Your task to perform on an android device: Search for flights from Mexico city to Boston Image 0: 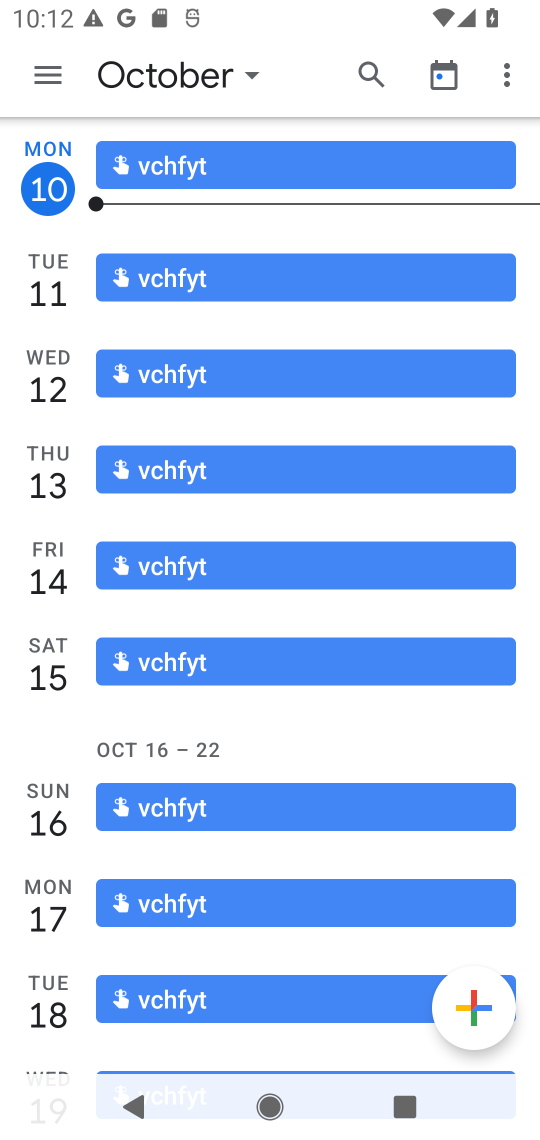
Step 0: press back button
Your task to perform on an android device: Search for flights from Mexico city to Boston Image 1: 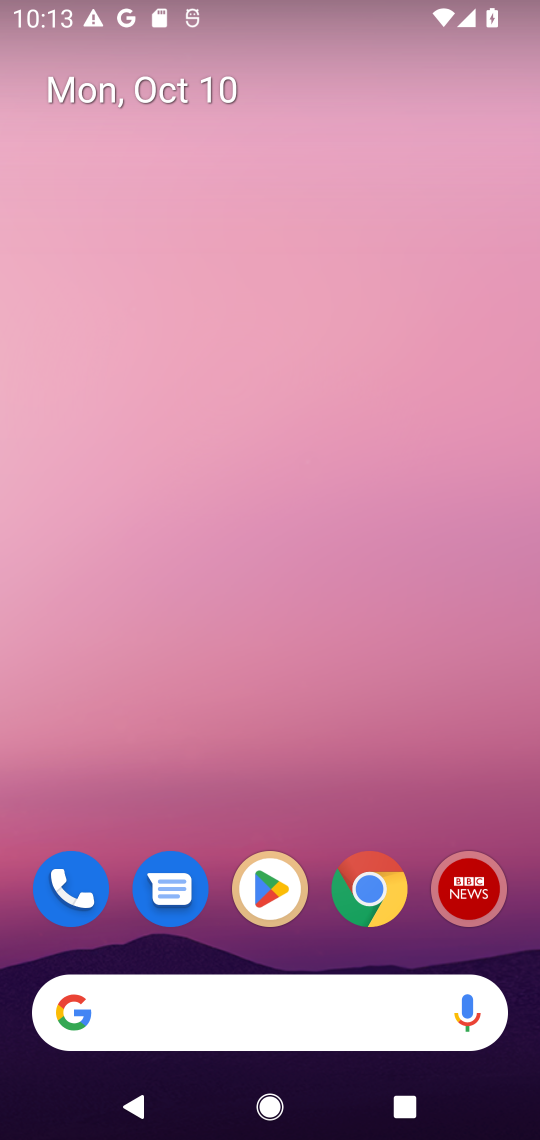
Step 1: click (363, 1006)
Your task to perform on an android device: Search for flights from Mexico city to Boston Image 2: 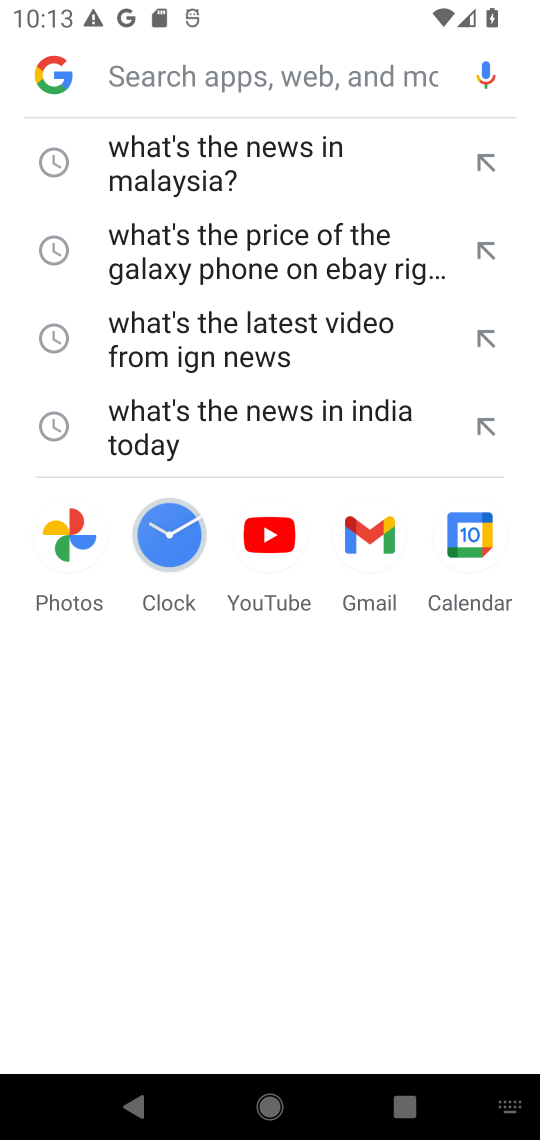
Step 2: type "flights from Mexico city to Boston"
Your task to perform on an android device: Search for flights from Mexico city to Boston Image 3: 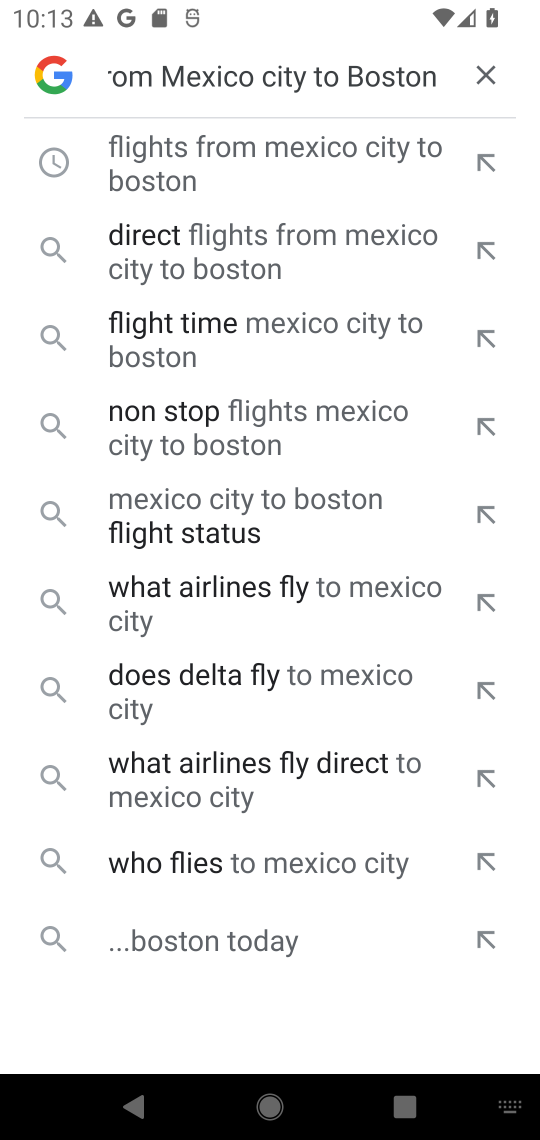
Step 3: type ""
Your task to perform on an android device: Search for flights from Mexico city to Boston Image 4: 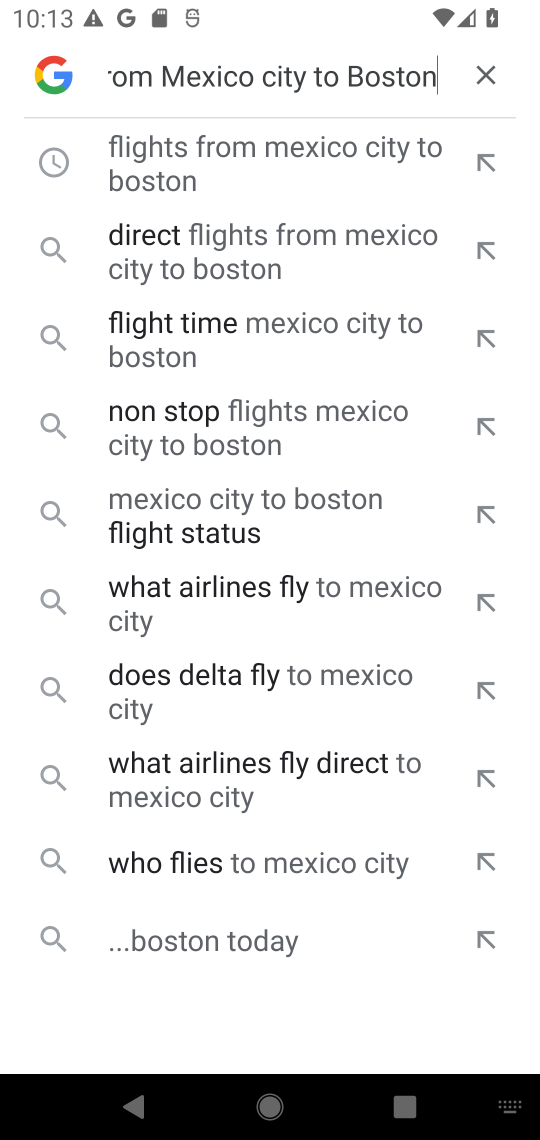
Step 4: click (226, 164)
Your task to perform on an android device: Search for flights from Mexico city to Boston Image 5: 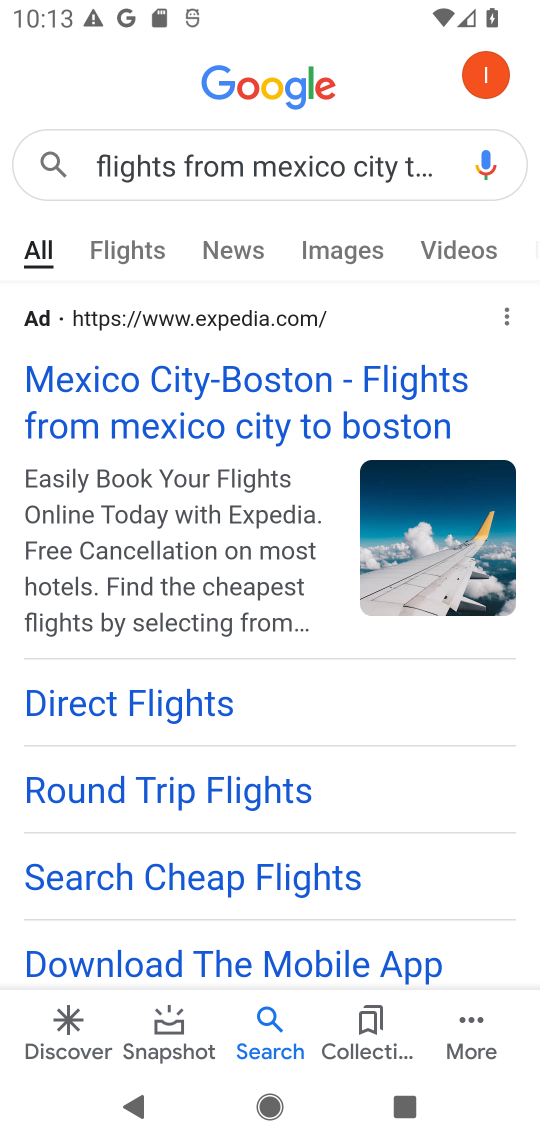
Step 5: drag from (302, 637) to (288, 477)
Your task to perform on an android device: Search for flights from Mexico city to Boston Image 6: 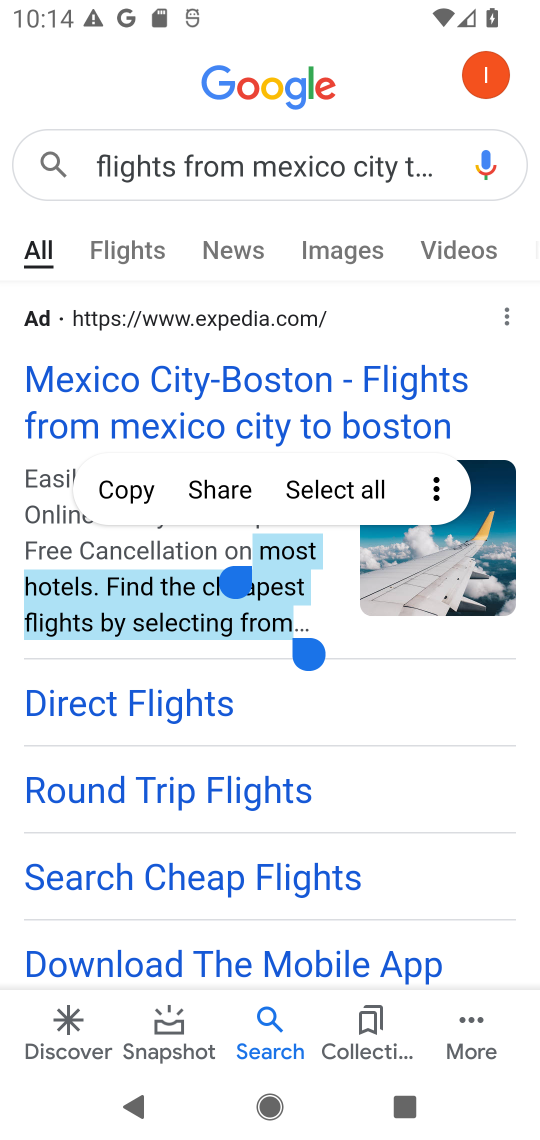
Step 6: click (37, 103)
Your task to perform on an android device: Search for flights from Mexico city to Boston Image 7: 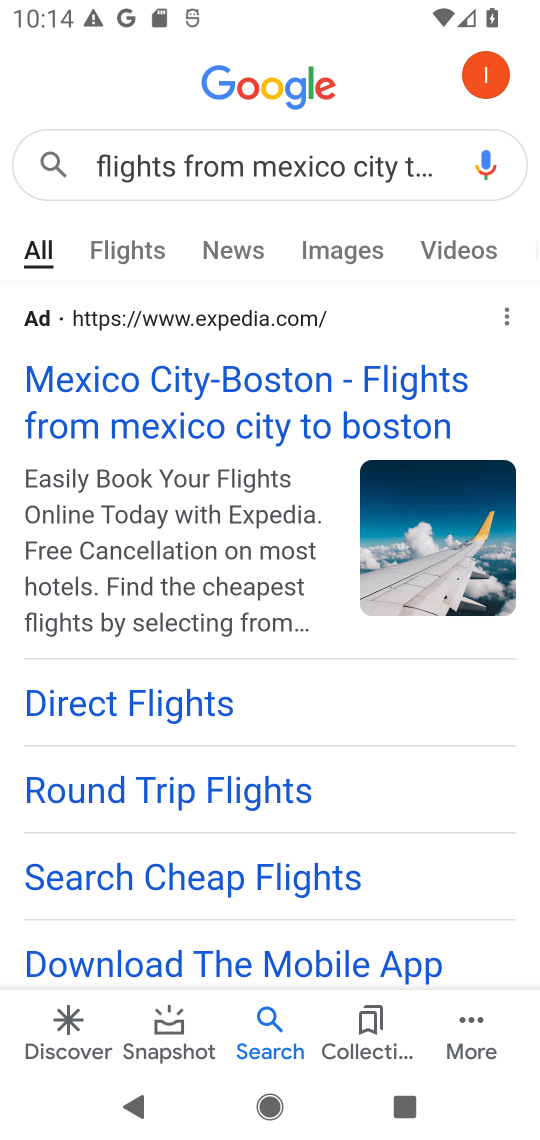
Step 7: click (35, 99)
Your task to perform on an android device: Search for flights from Mexico city to Boston Image 8: 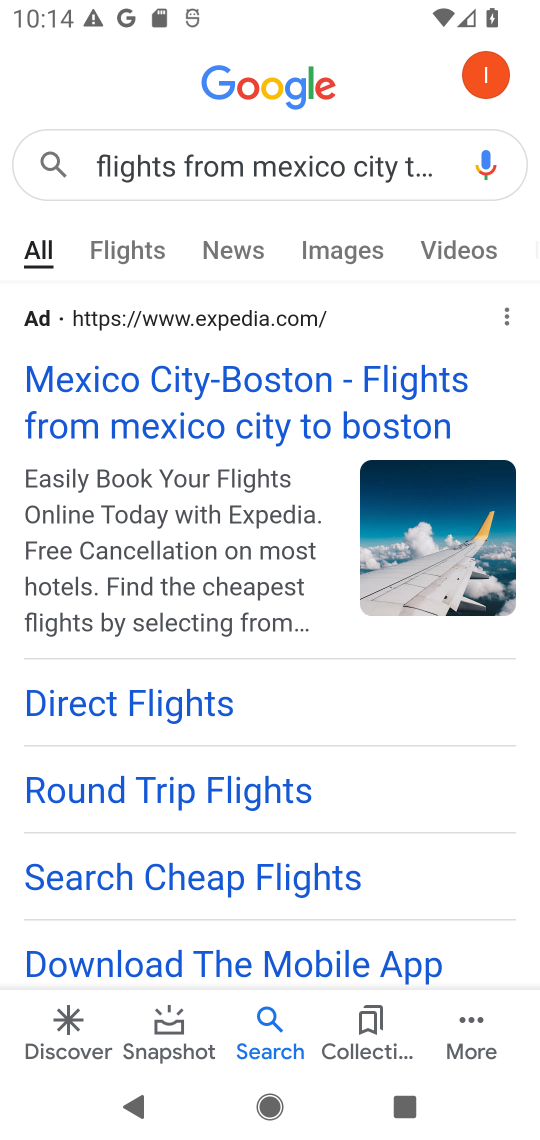
Step 8: drag from (445, 738) to (391, 153)
Your task to perform on an android device: Search for flights from Mexico city to Boston Image 9: 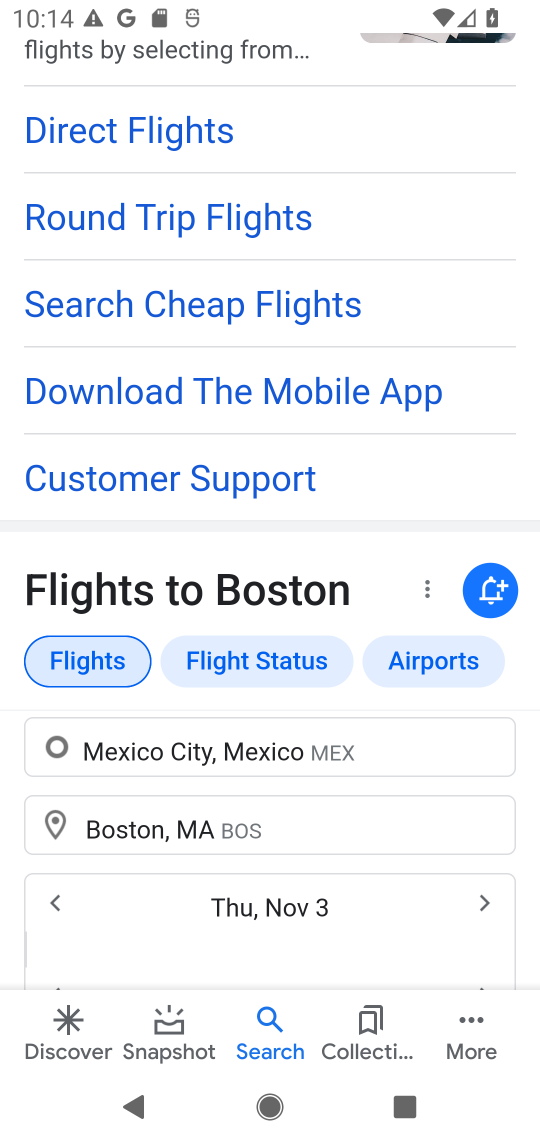
Step 9: drag from (414, 600) to (401, 305)
Your task to perform on an android device: Search for flights from Mexico city to Boston Image 10: 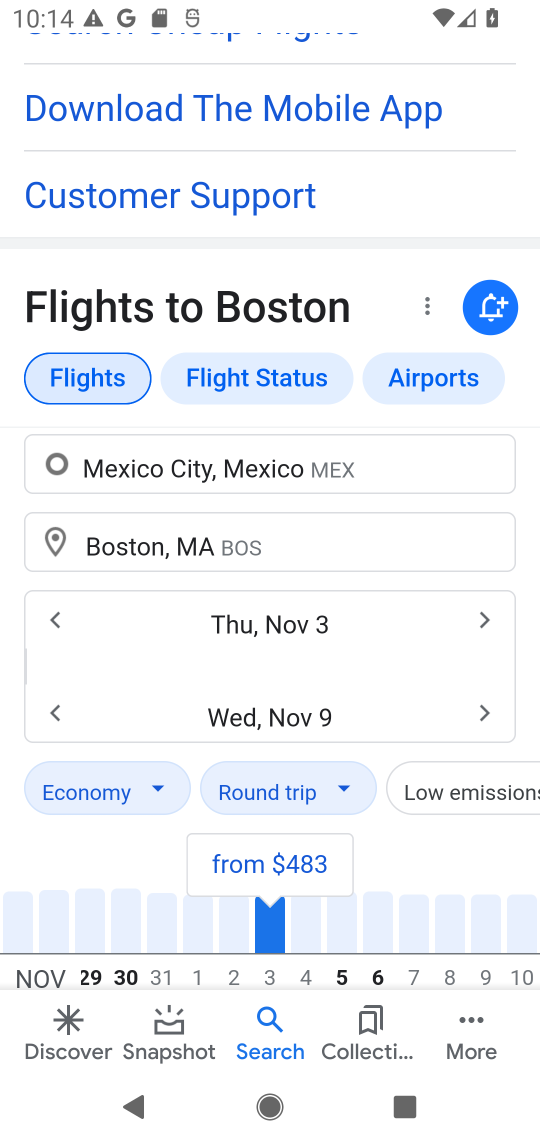
Step 10: drag from (399, 773) to (397, 439)
Your task to perform on an android device: Search for flights from Mexico city to Boston Image 11: 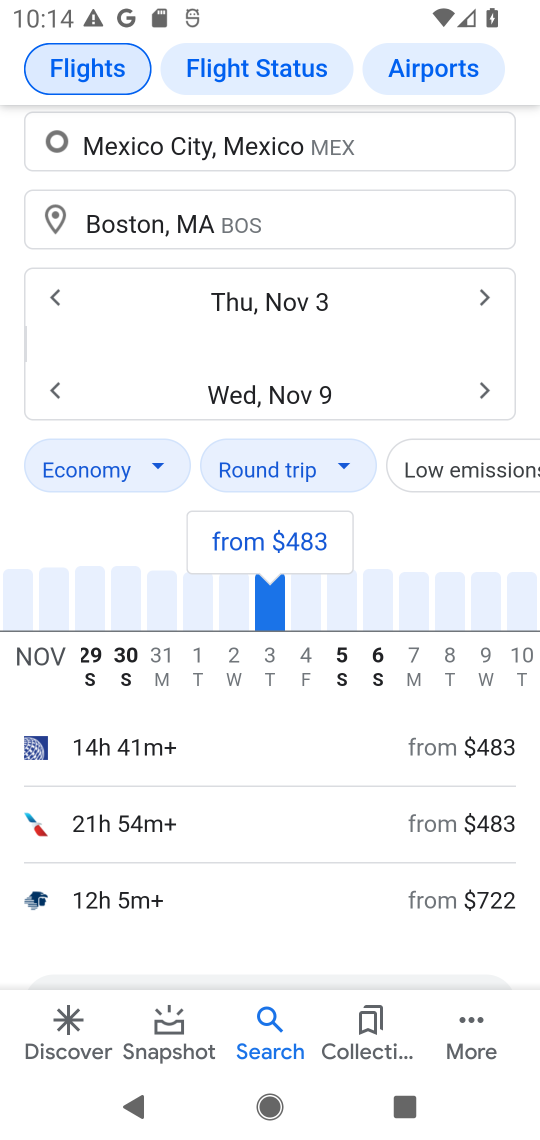
Step 11: drag from (279, 795) to (277, 709)
Your task to perform on an android device: Search for flights from Mexico city to Boston Image 12: 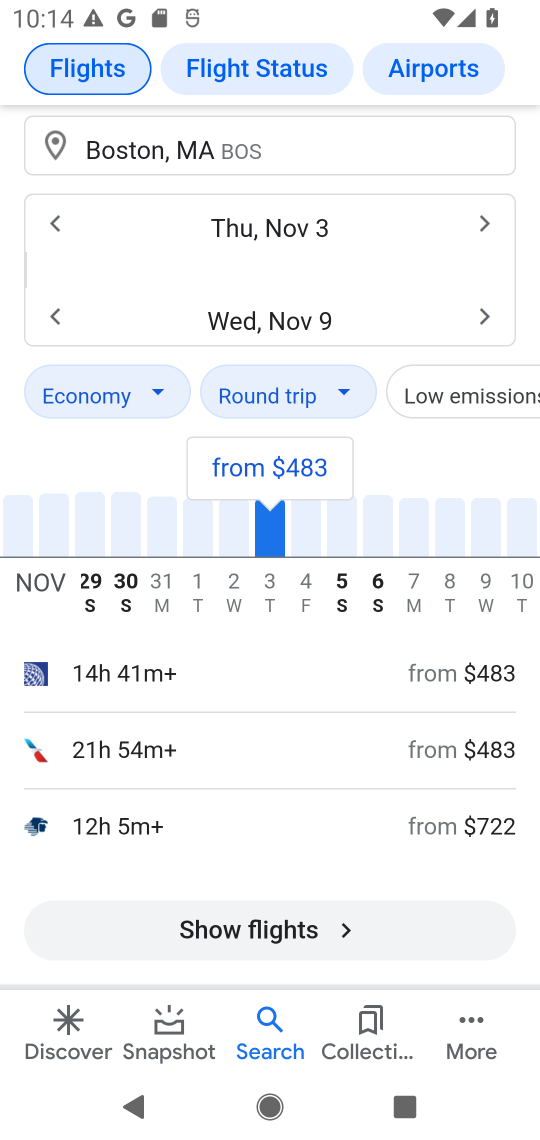
Step 12: drag from (273, 772) to (273, 605)
Your task to perform on an android device: Search for flights from Mexico city to Boston Image 13: 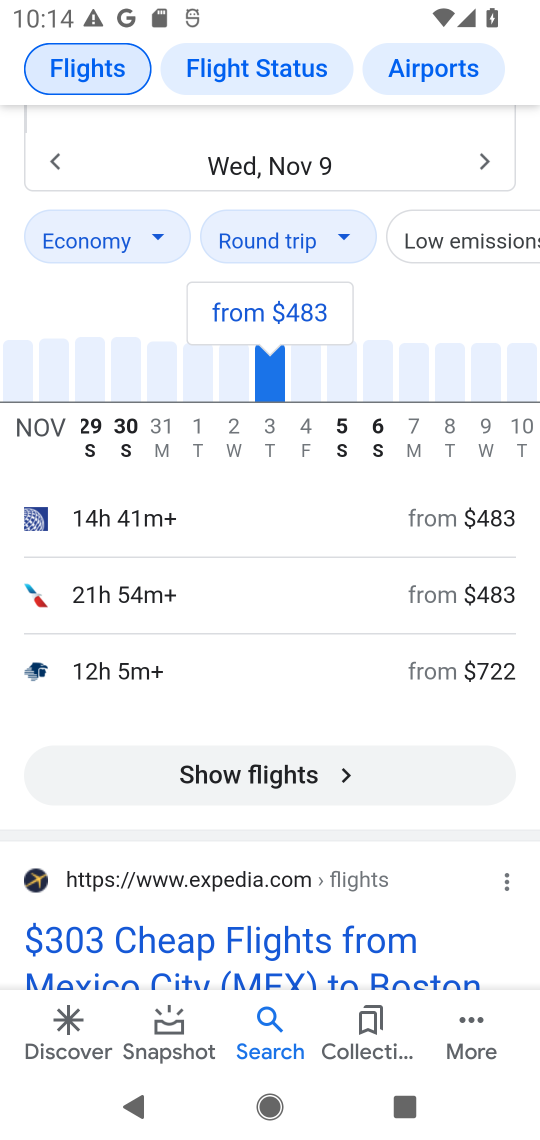
Step 13: click (278, 763)
Your task to perform on an android device: Search for flights from Mexico city to Boston Image 14: 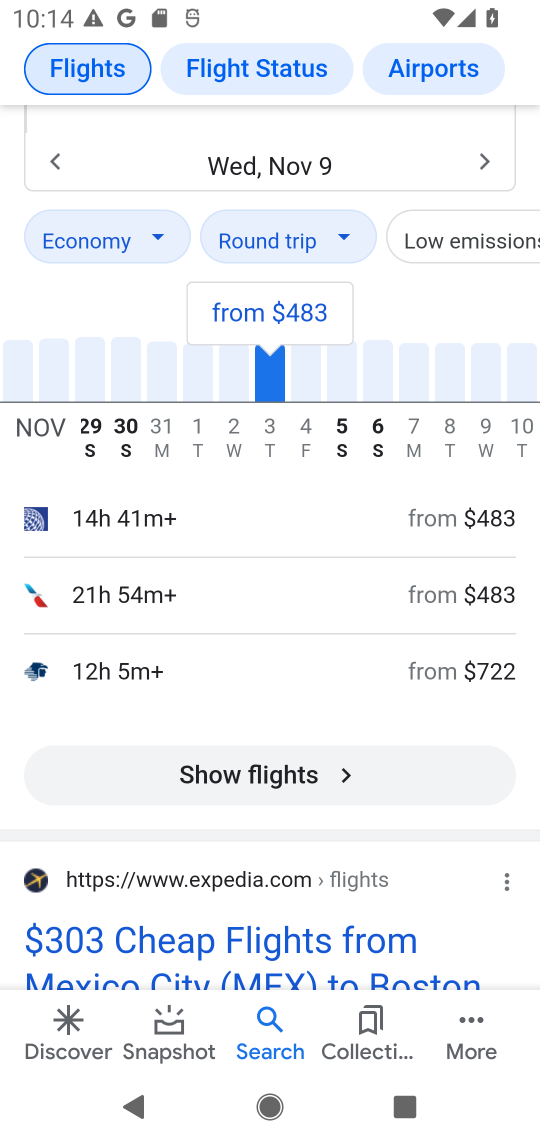
Step 14: click (280, 768)
Your task to perform on an android device: Search for flights from Mexico city to Boston Image 15: 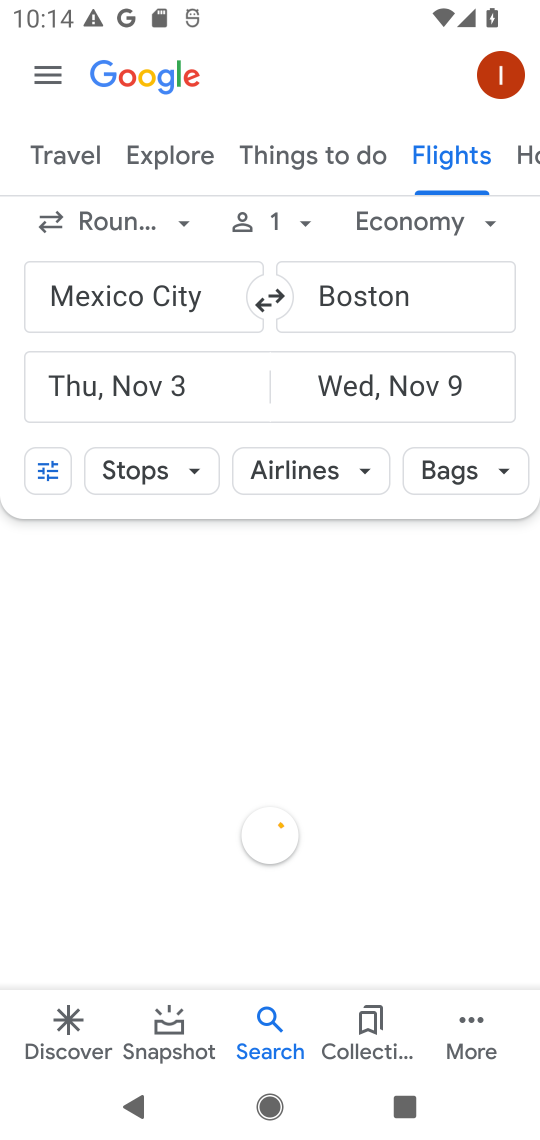
Step 15: click (276, 663)
Your task to perform on an android device: Search for flights from Mexico city to Boston Image 16: 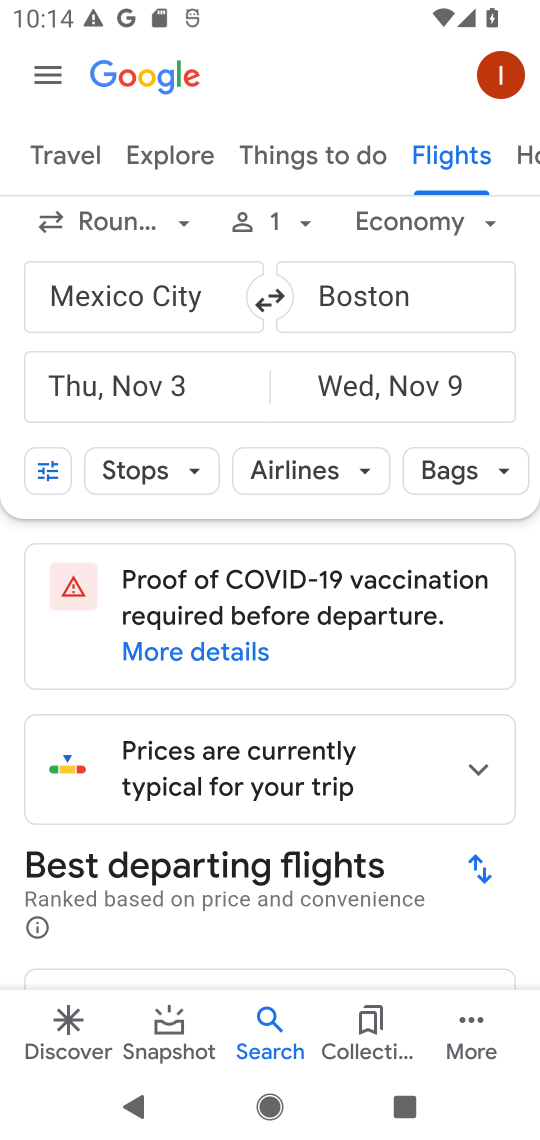
Step 16: drag from (105, 745) to (129, 639)
Your task to perform on an android device: Search for flights from Mexico city to Boston Image 17: 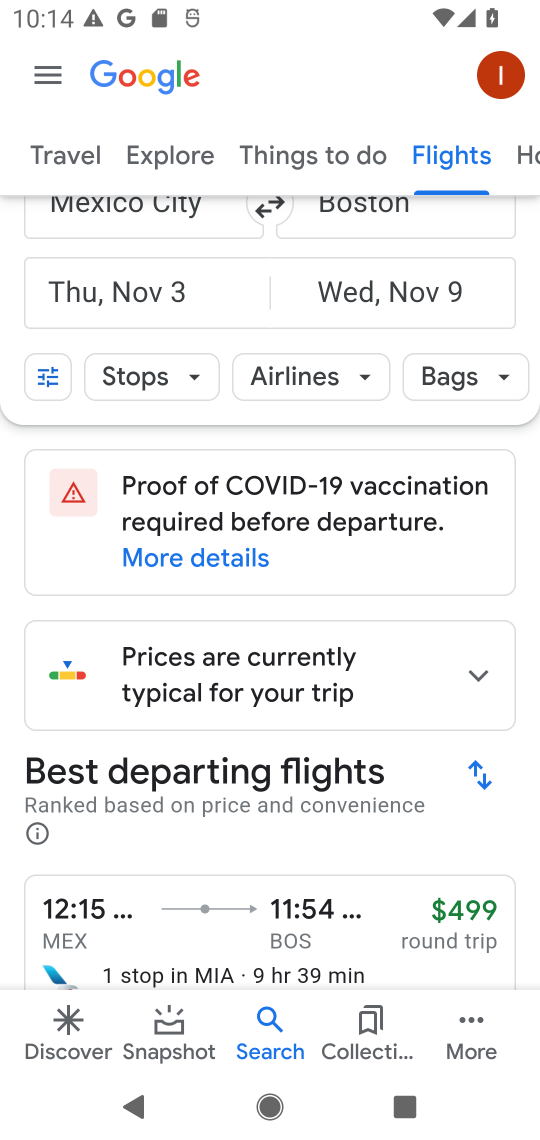
Step 17: drag from (36, 631) to (40, 376)
Your task to perform on an android device: Search for flights from Mexico city to Boston Image 18: 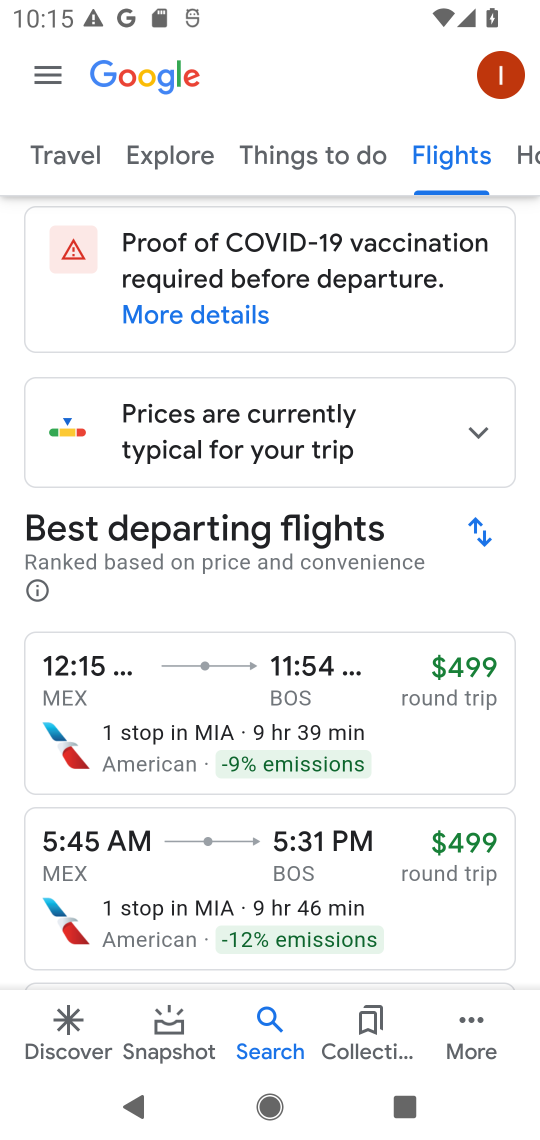
Step 18: drag from (26, 701) to (58, 480)
Your task to perform on an android device: Search for flights from Mexico city to Boston Image 19: 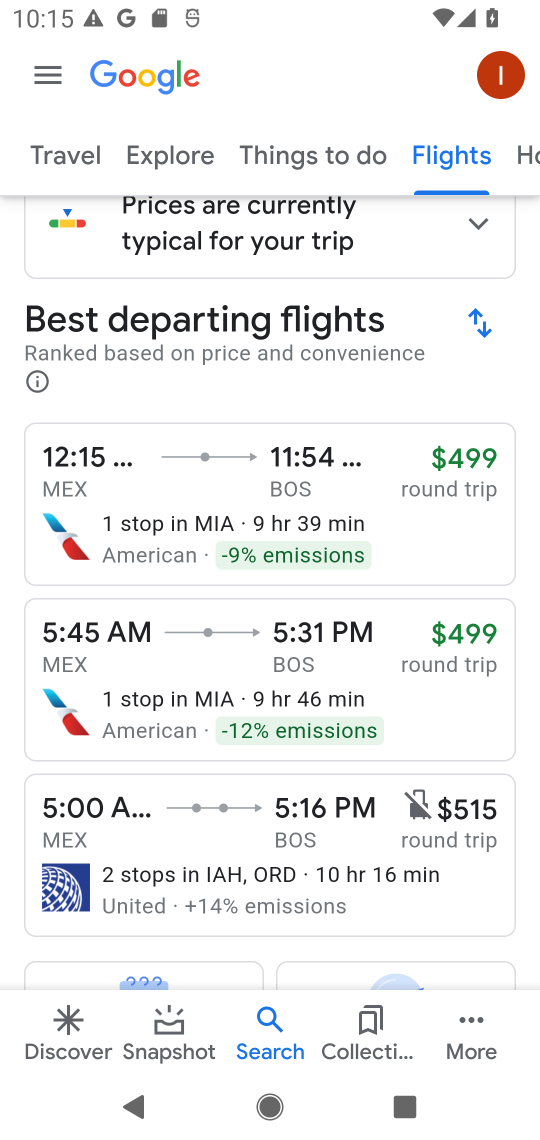
Step 19: click (63, 468)
Your task to perform on an android device: Search for flights from Mexico city to Boston Image 20: 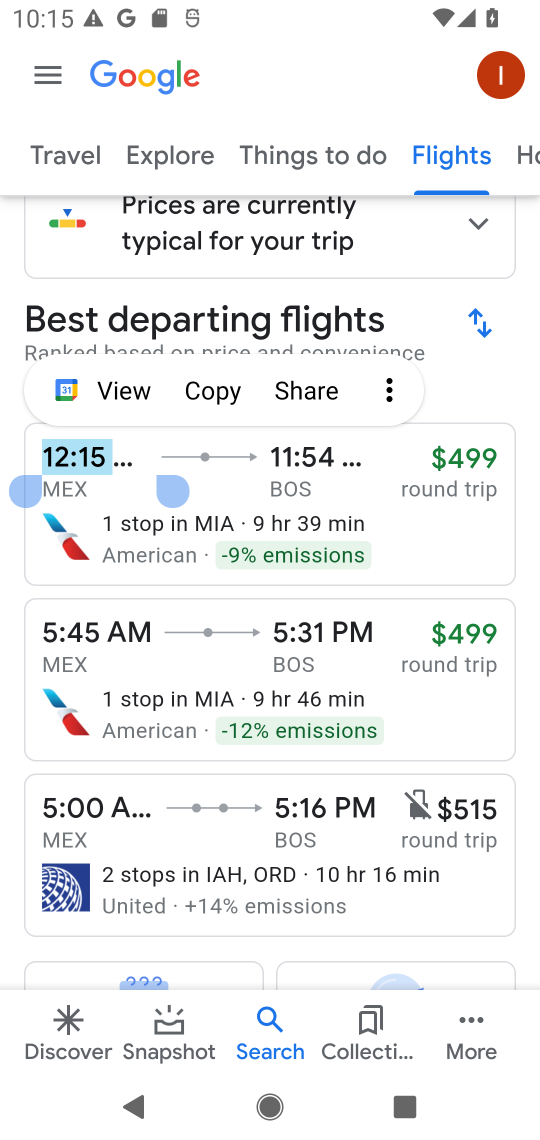
Step 20: click (63, 468)
Your task to perform on an android device: Search for flights from Mexico city to Boston Image 21: 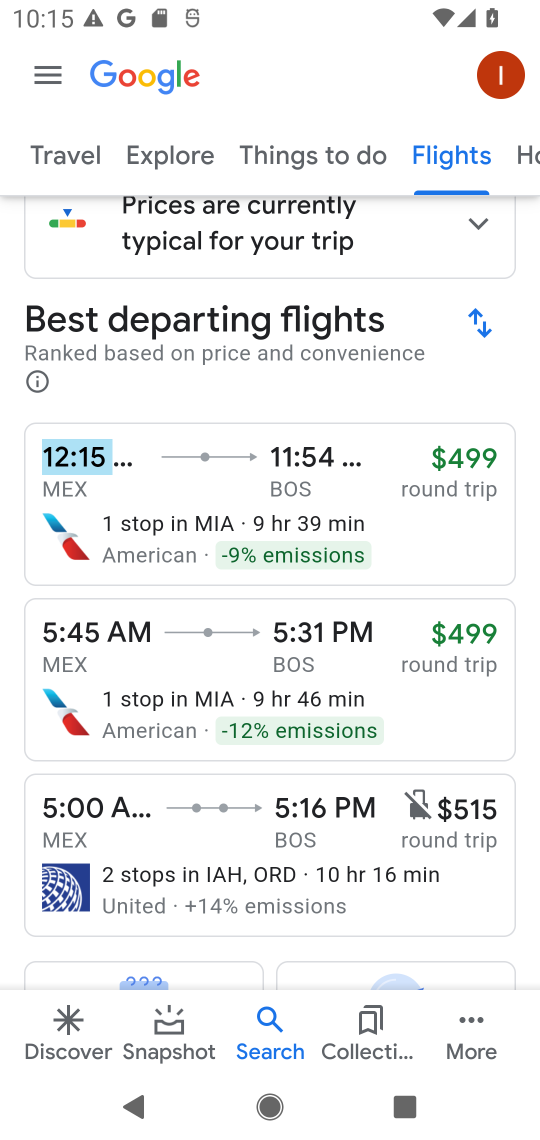
Step 21: click (63, 468)
Your task to perform on an android device: Search for flights from Mexico city to Boston Image 22: 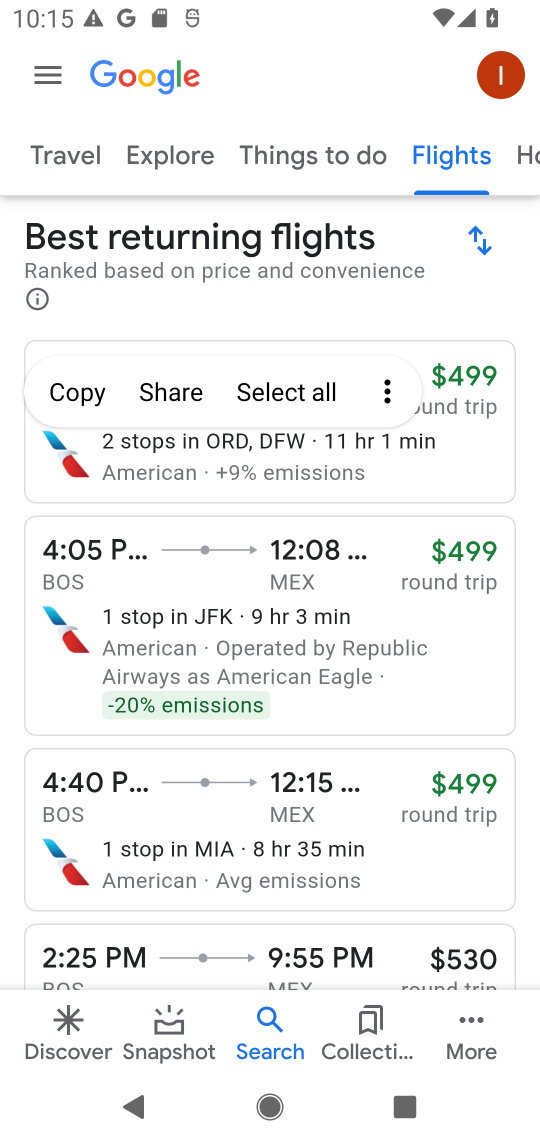
Step 22: task complete